Your task to perform on an android device: Open Google Chrome and click the shortcut for Amazon.com Image 0: 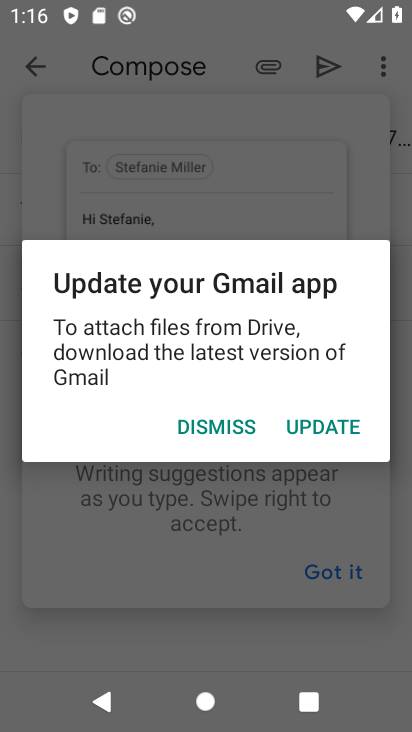
Step 0: press home button
Your task to perform on an android device: Open Google Chrome and click the shortcut for Amazon.com Image 1: 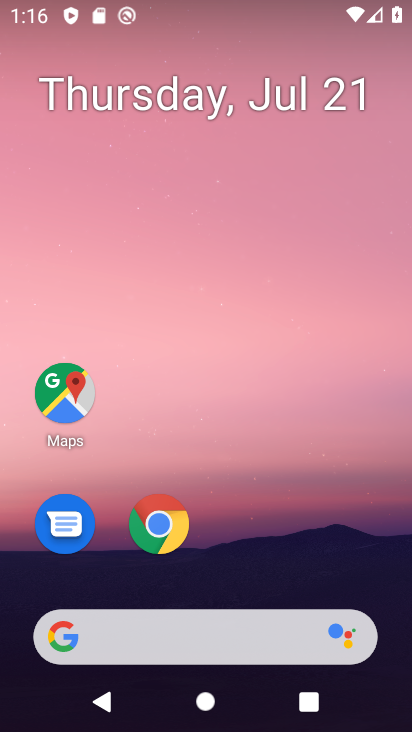
Step 1: drag from (236, 528) to (246, 0)
Your task to perform on an android device: Open Google Chrome and click the shortcut for Amazon.com Image 2: 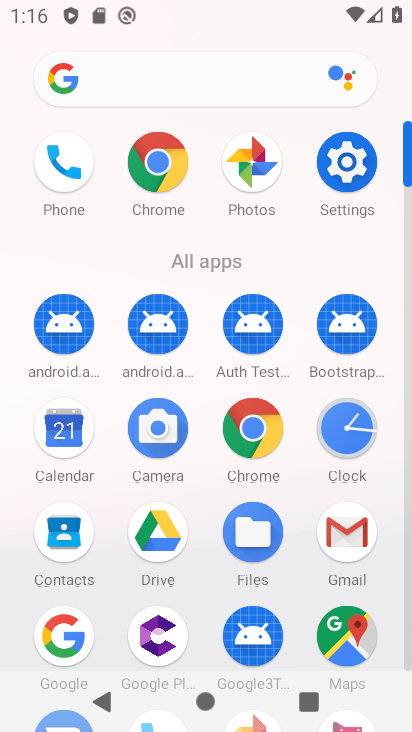
Step 2: click (155, 159)
Your task to perform on an android device: Open Google Chrome and click the shortcut for Amazon.com Image 3: 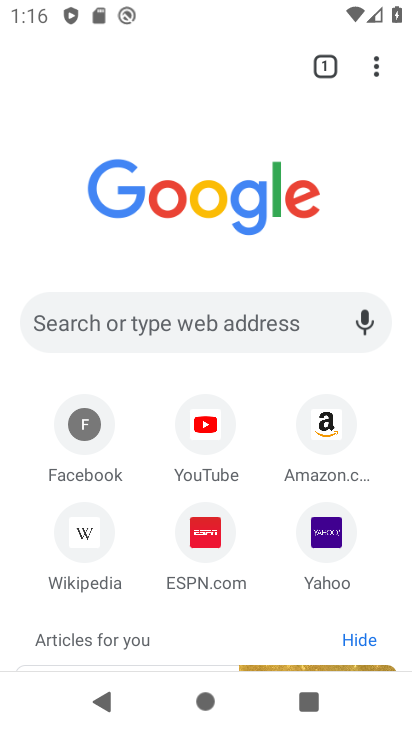
Step 3: click (332, 430)
Your task to perform on an android device: Open Google Chrome and click the shortcut for Amazon.com Image 4: 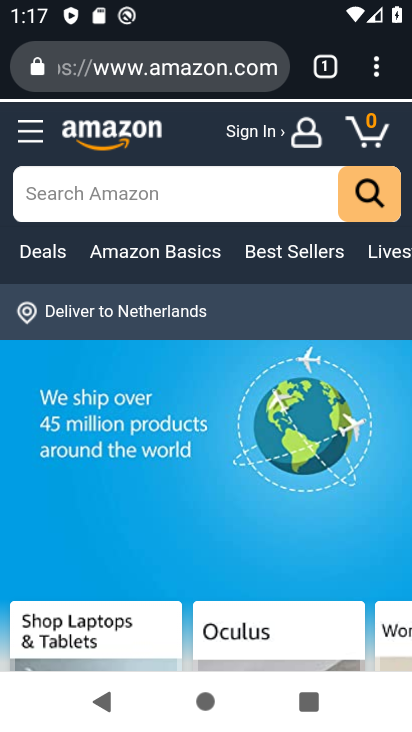
Step 4: task complete